Your task to perform on an android device: Is it going to rain today? Image 0: 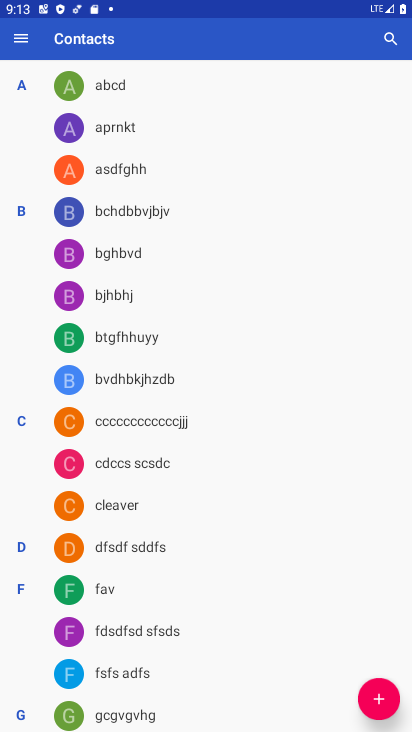
Step 0: press home button
Your task to perform on an android device: Is it going to rain today? Image 1: 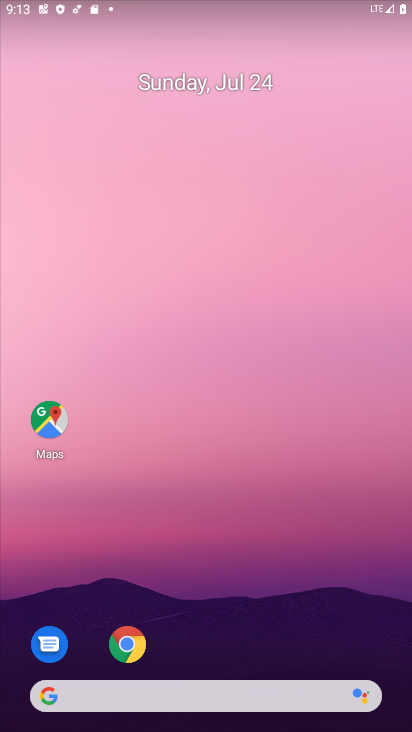
Step 1: click (146, 696)
Your task to perform on an android device: Is it going to rain today? Image 2: 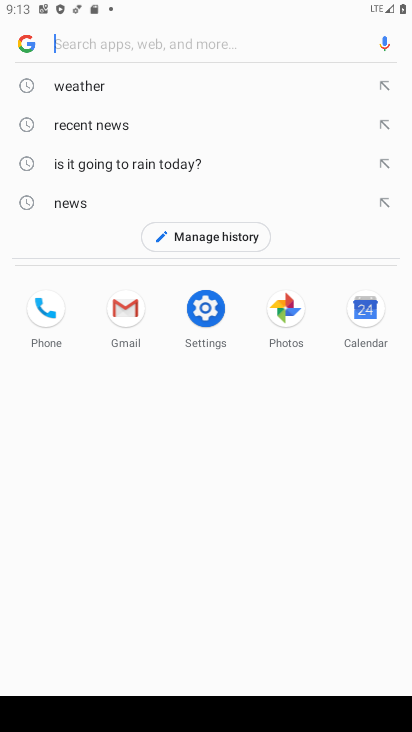
Step 2: click (65, 86)
Your task to perform on an android device: Is it going to rain today? Image 3: 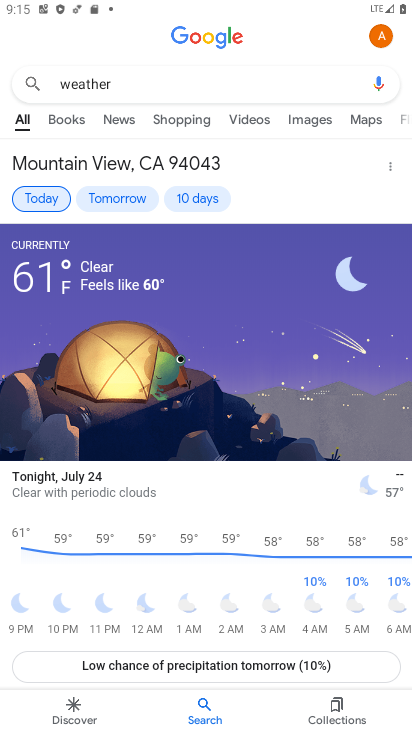
Step 3: task complete